Your task to perform on an android device: turn pop-ups on in chrome Image 0: 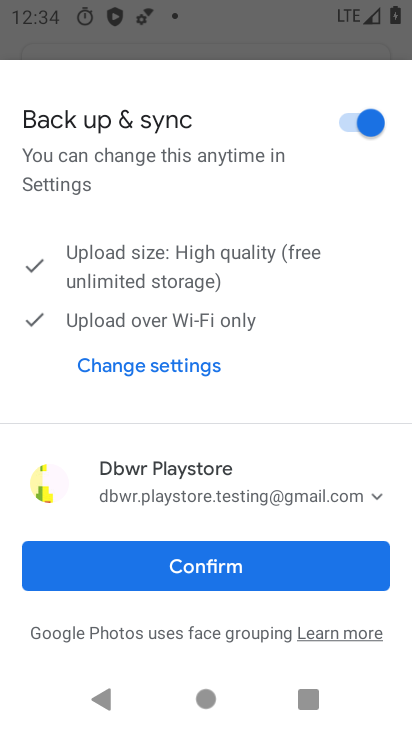
Step 0: press home button
Your task to perform on an android device: turn pop-ups on in chrome Image 1: 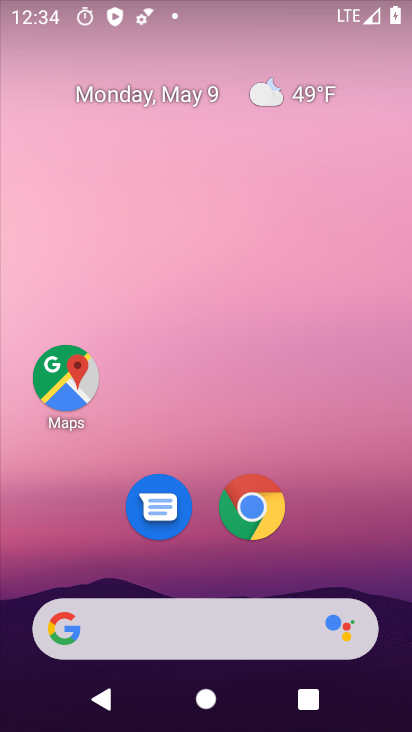
Step 1: drag from (223, 710) to (221, 78)
Your task to perform on an android device: turn pop-ups on in chrome Image 2: 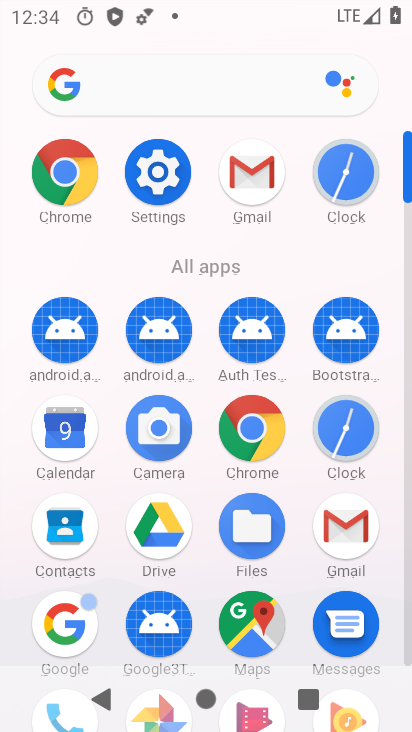
Step 2: click (253, 429)
Your task to perform on an android device: turn pop-ups on in chrome Image 3: 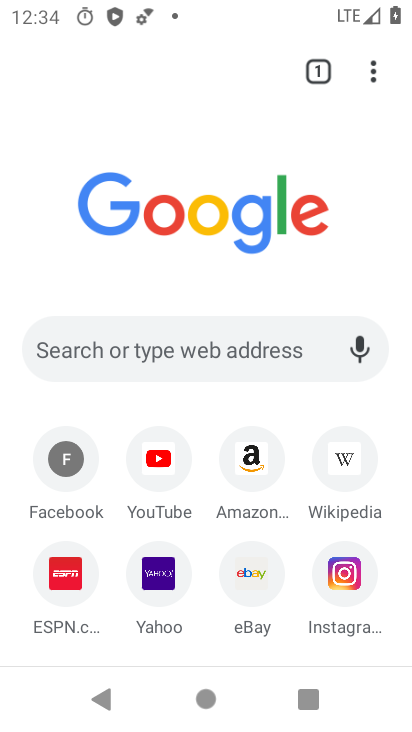
Step 3: click (371, 80)
Your task to perform on an android device: turn pop-ups on in chrome Image 4: 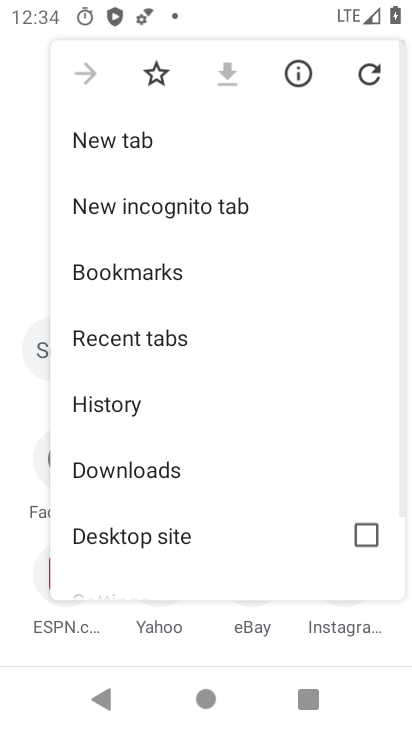
Step 4: drag from (147, 553) to (147, 250)
Your task to perform on an android device: turn pop-ups on in chrome Image 5: 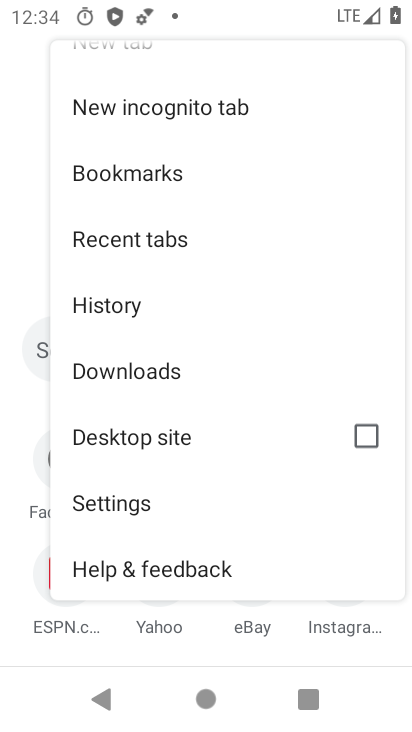
Step 5: click (122, 498)
Your task to perform on an android device: turn pop-ups on in chrome Image 6: 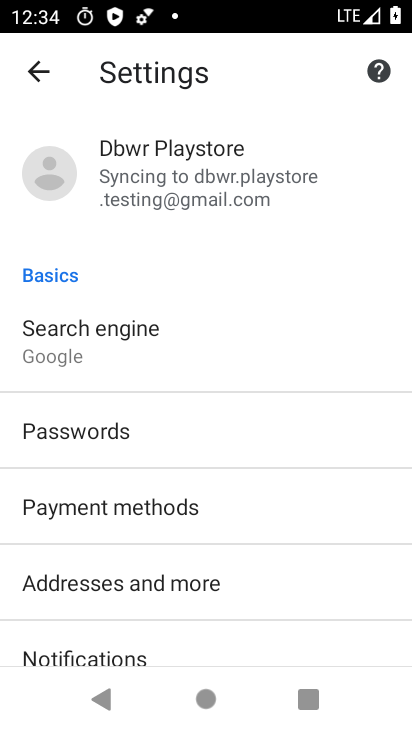
Step 6: drag from (176, 657) to (178, 388)
Your task to perform on an android device: turn pop-ups on in chrome Image 7: 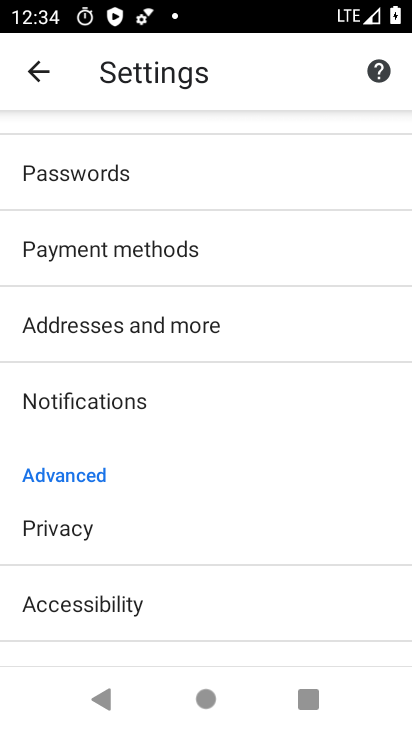
Step 7: drag from (168, 627) to (162, 275)
Your task to perform on an android device: turn pop-ups on in chrome Image 8: 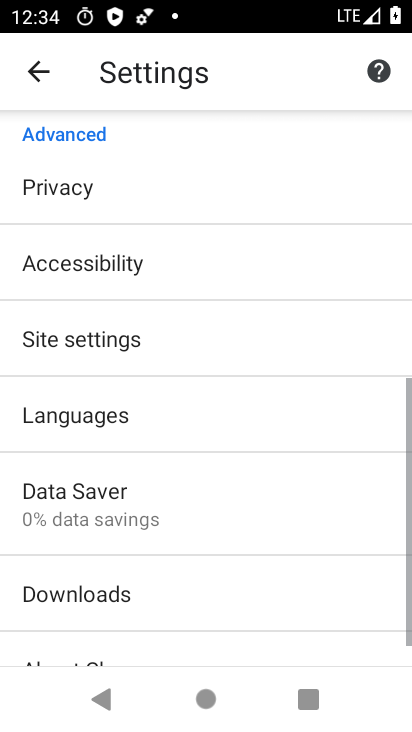
Step 8: click (101, 336)
Your task to perform on an android device: turn pop-ups on in chrome Image 9: 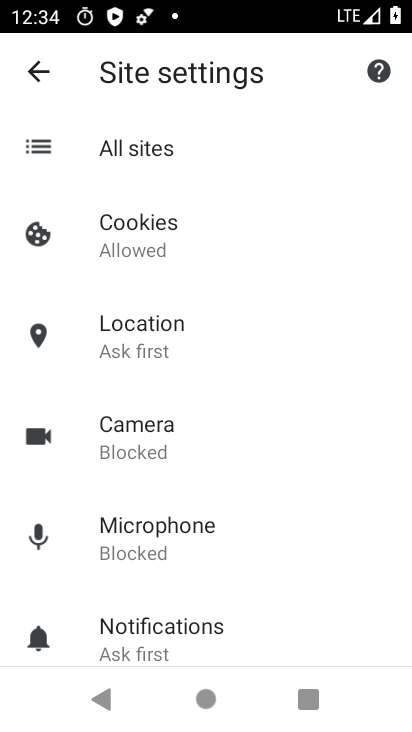
Step 9: drag from (165, 614) to (155, 297)
Your task to perform on an android device: turn pop-ups on in chrome Image 10: 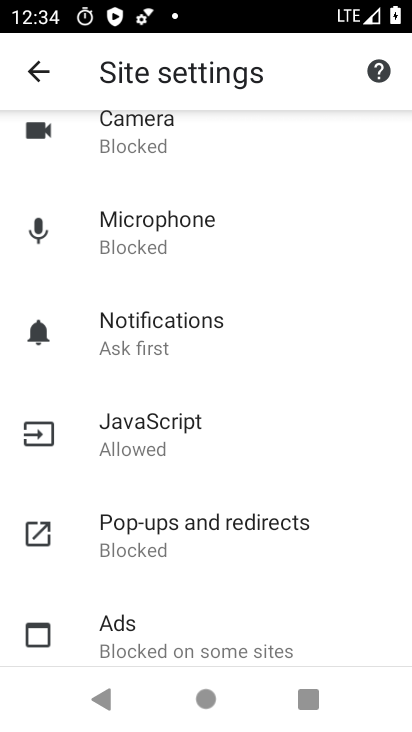
Step 10: click (164, 523)
Your task to perform on an android device: turn pop-ups on in chrome Image 11: 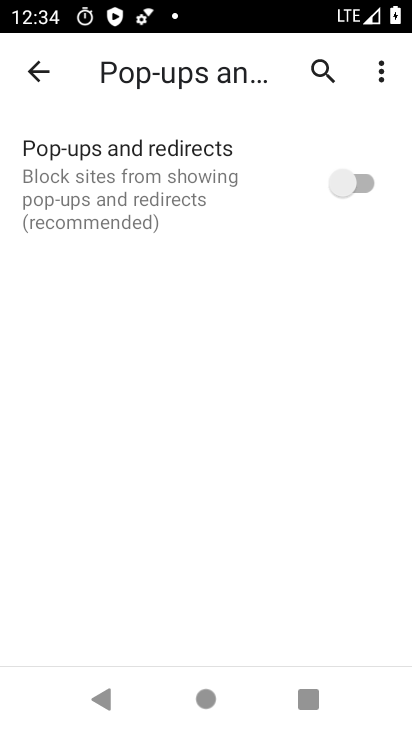
Step 11: click (358, 181)
Your task to perform on an android device: turn pop-ups on in chrome Image 12: 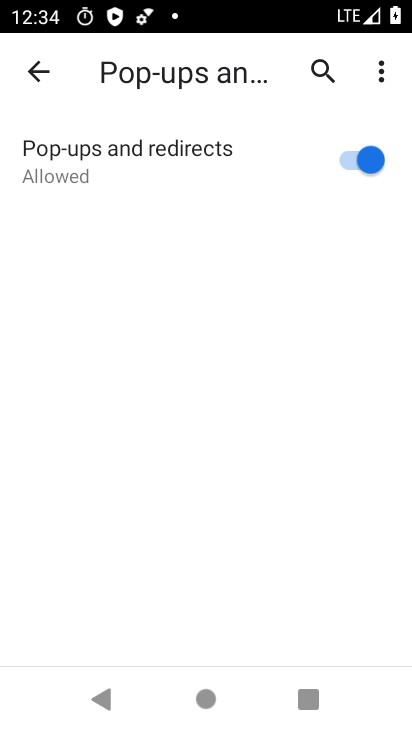
Step 12: task complete